Your task to perform on an android device: open wifi settings Image 0: 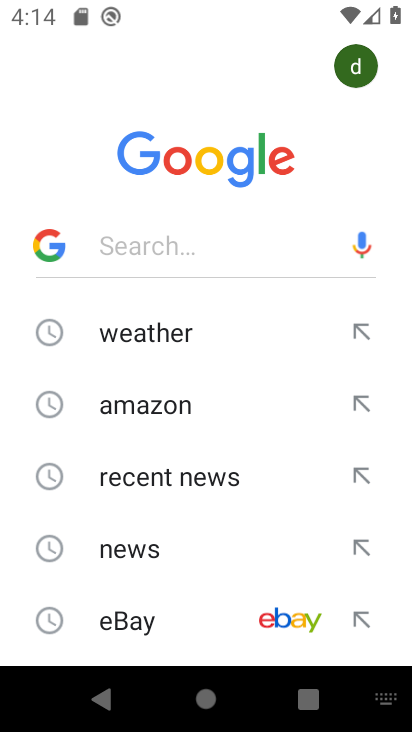
Step 0: press home button
Your task to perform on an android device: open wifi settings Image 1: 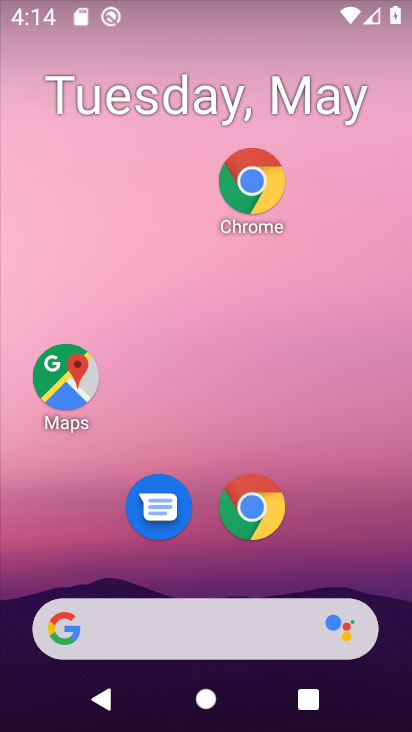
Step 1: drag from (344, 500) to (297, 86)
Your task to perform on an android device: open wifi settings Image 2: 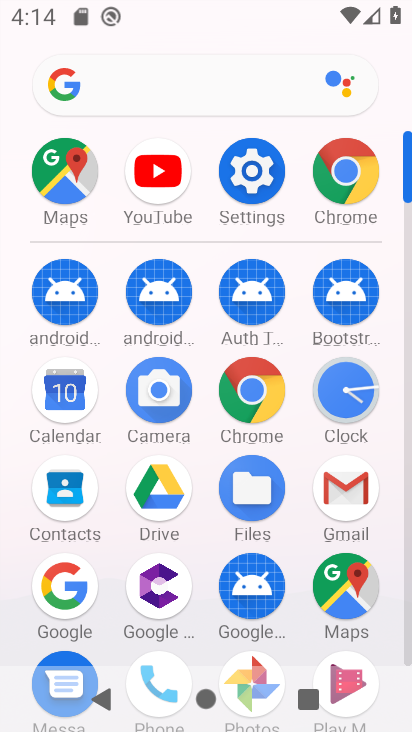
Step 2: click (275, 152)
Your task to perform on an android device: open wifi settings Image 3: 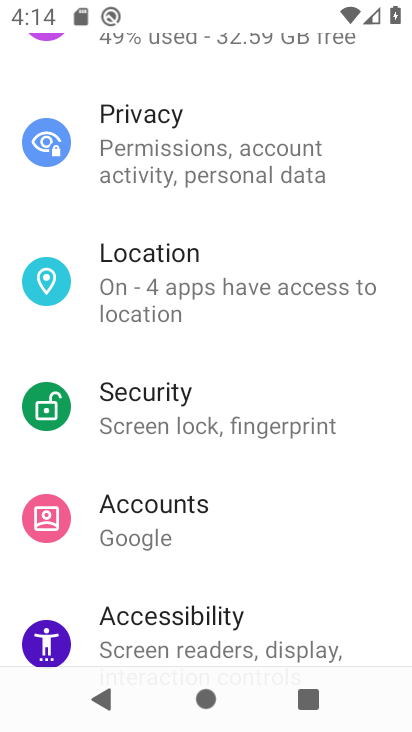
Step 3: drag from (279, 157) to (298, 628)
Your task to perform on an android device: open wifi settings Image 4: 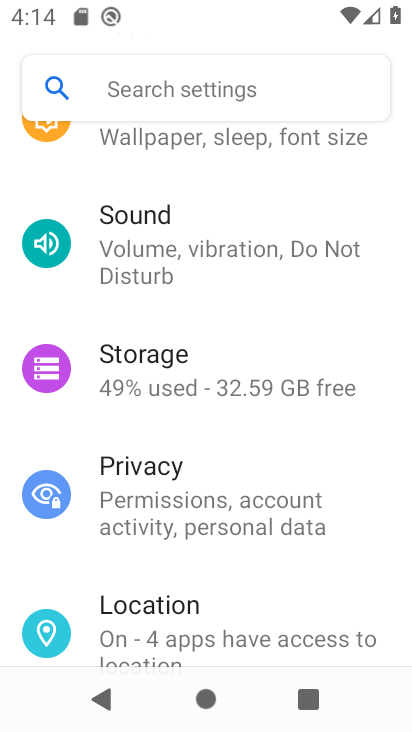
Step 4: drag from (254, 193) to (293, 641)
Your task to perform on an android device: open wifi settings Image 5: 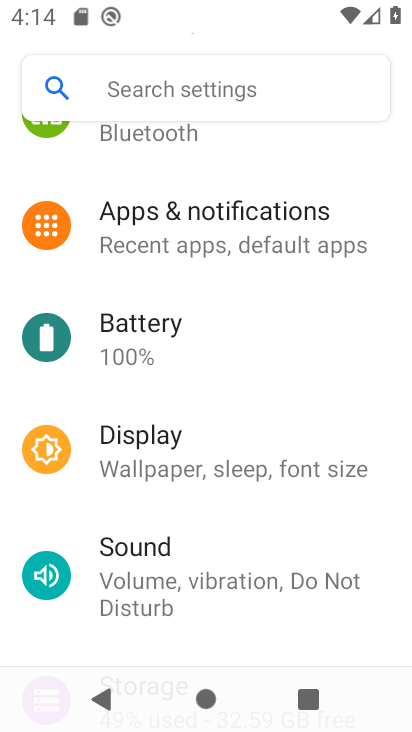
Step 5: drag from (244, 242) to (310, 674)
Your task to perform on an android device: open wifi settings Image 6: 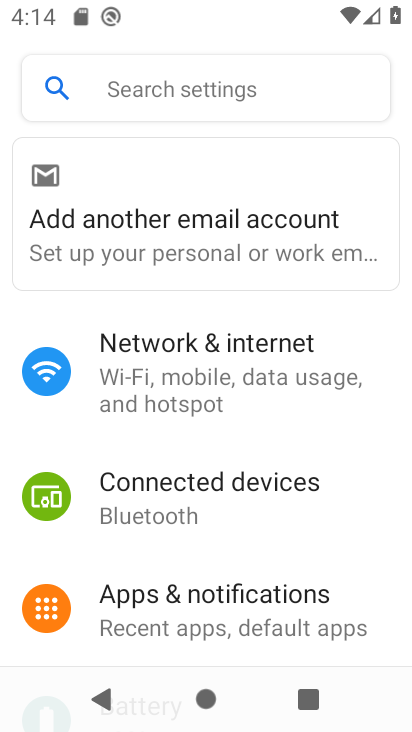
Step 6: drag from (250, 294) to (261, 630)
Your task to perform on an android device: open wifi settings Image 7: 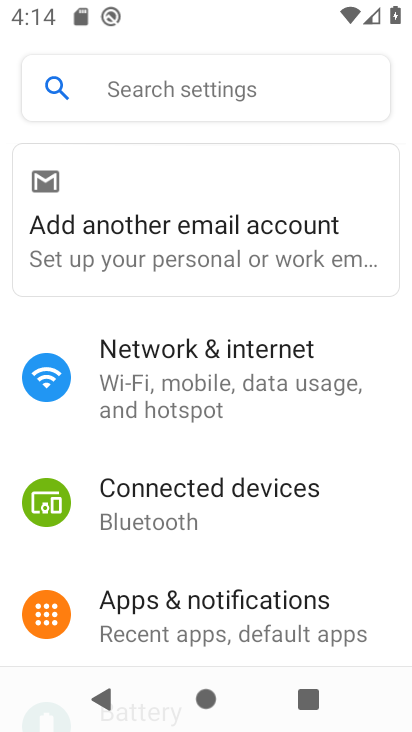
Step 7: click (189, 386)
Your task to perform on an android device: open wifi settings Image 8: 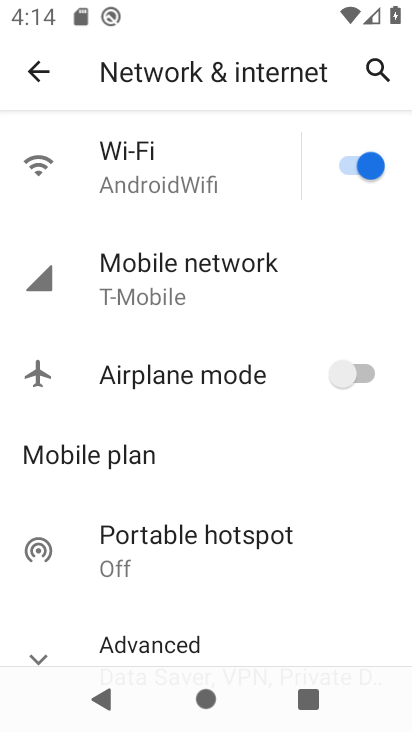
Step 8: click (158, 184)
Your task to perform on an android device: open wifi settings Image 9: 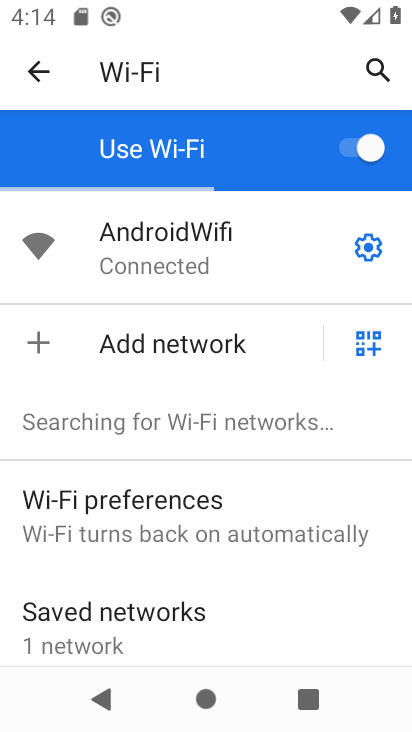
Step 9: task complete